Your task to perform on an android device: turn off smart reply in the gmail app Image 0: 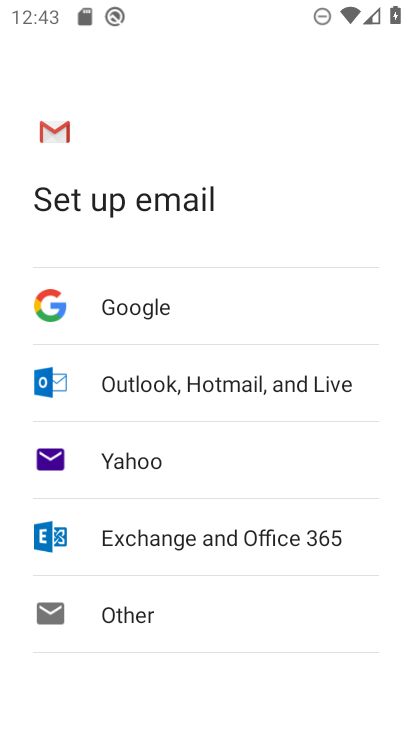
Step 0: press home button
Your task to perform on an android device: turn off smart reply in the gmail app Image 1: 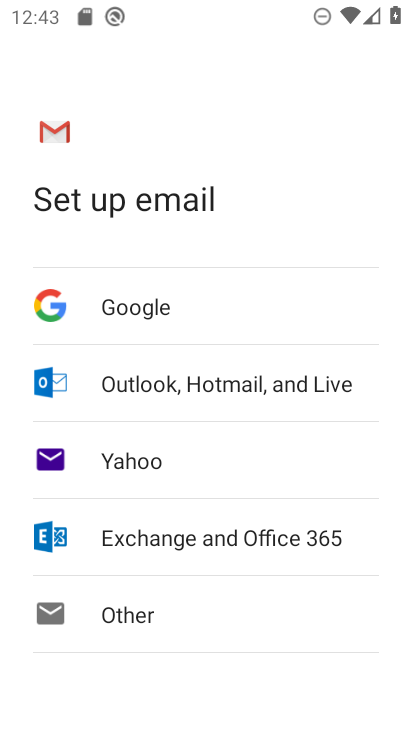
Step 1: press home button
Your task to perform on an android device: turn off smart reply in the gmail app Image 2: 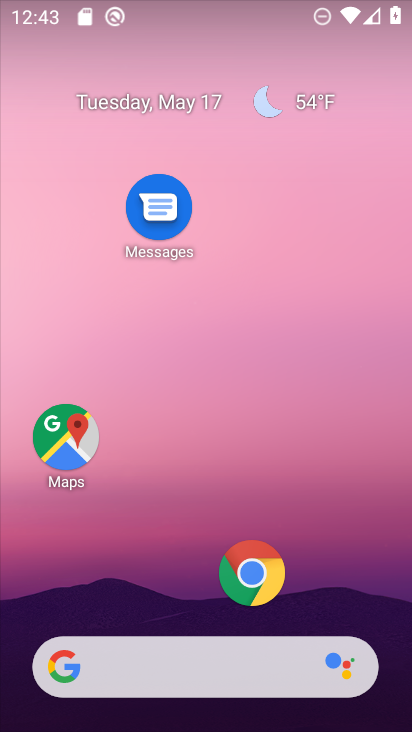
Step 2: drag from (203, 613) to (203, 0)
Your task to perform on an android device: turn off smart reply in the gmail app Image 3: 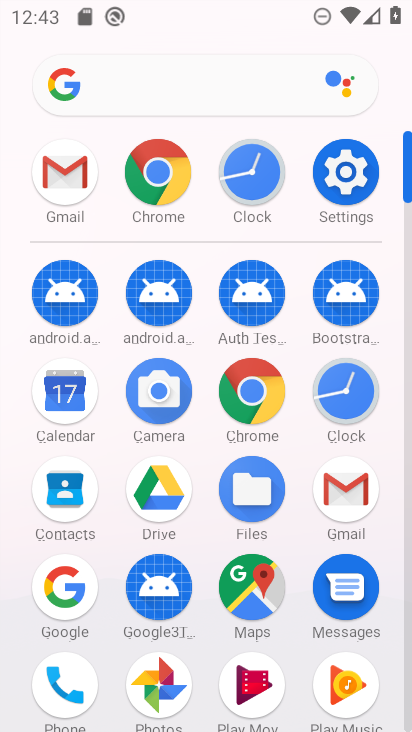
Step 3: click (344, 484)
Your task to perform on an android device: turn off smart reply in the gmail app Image 4: 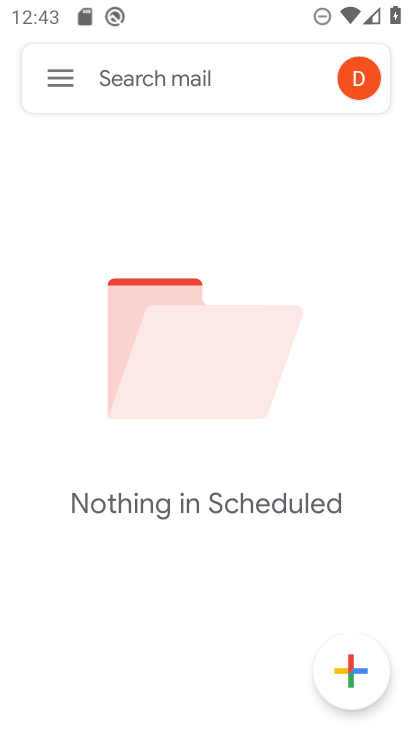
Step 4: click (63, 72)
Your task to perform on an android device: turn off smart reply in the gmail app Image 5: 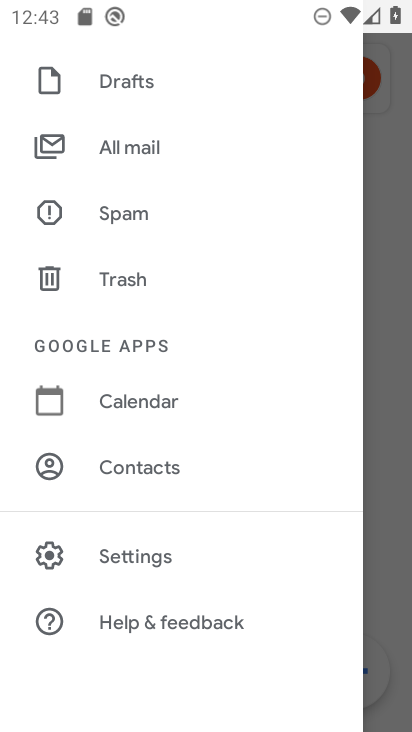
Step 5: click (161, 546)
Your task to perform on an android device: turn off smart reply in the gmail app Image 6: 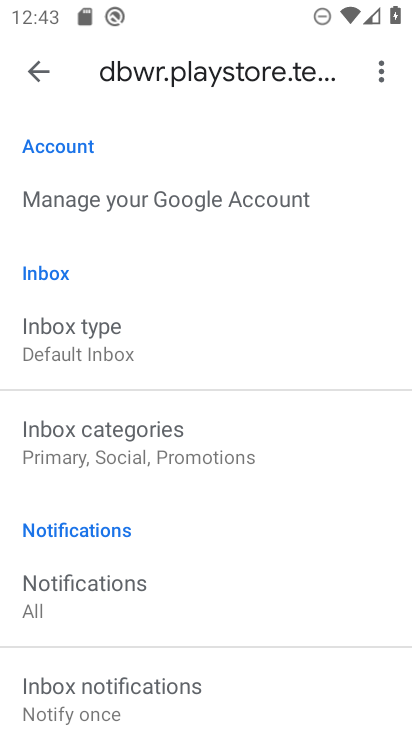
Step 6: task complete